Your task to perform on an android device: Set the phone to "Do not disturb". Image 0: 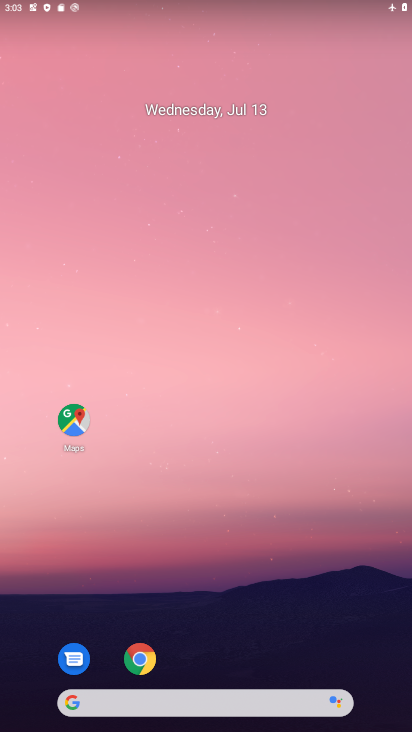
Step 0: drag from (362, 636) to (337, 200)
Your task to perform on an android device: Set the phone to "Do not disturb". Image 1: 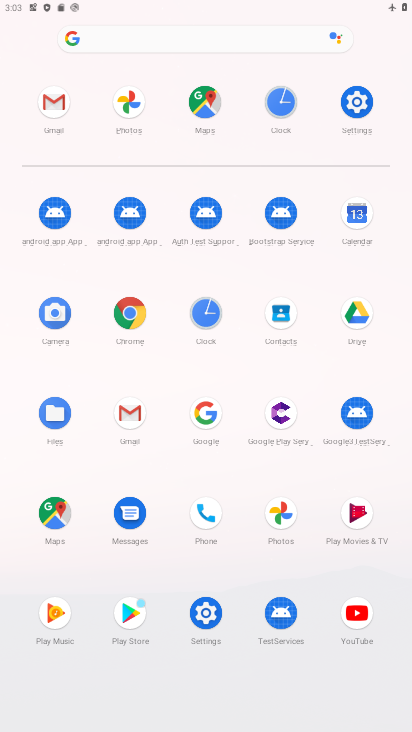
Step 1: click (206, 612)
Your task to perform on an android device: Set the phone to "Do not disturb". Image 2: 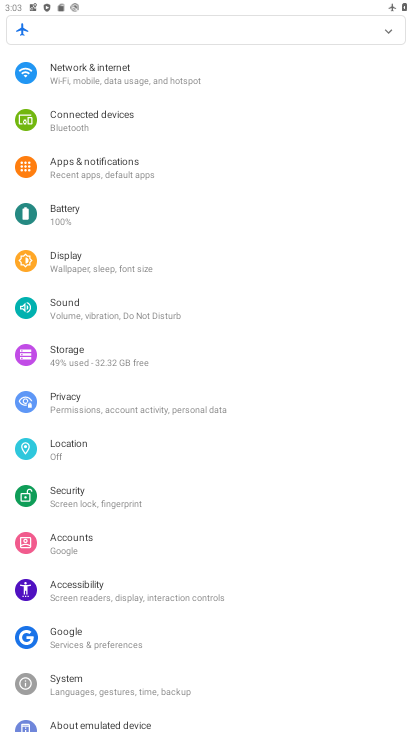
Step 2: click (59, 305)
Your task to perform on an android device: Set the phone to "Do not disturb". Image 3: 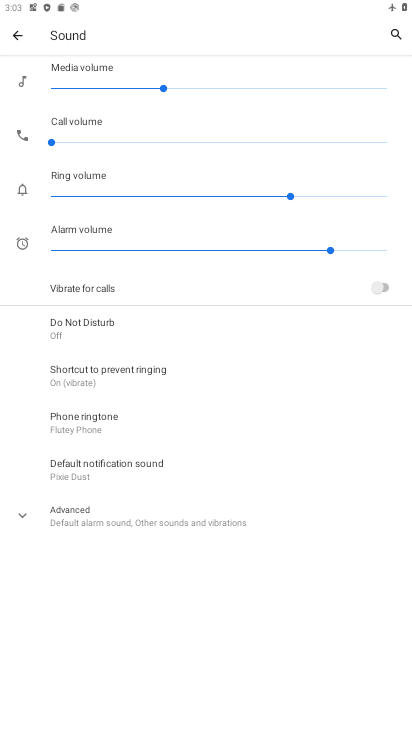
Step 3: click (79, 326)
Your task to perform on an android device: Set the phone to "Do not disturb". Image 4: 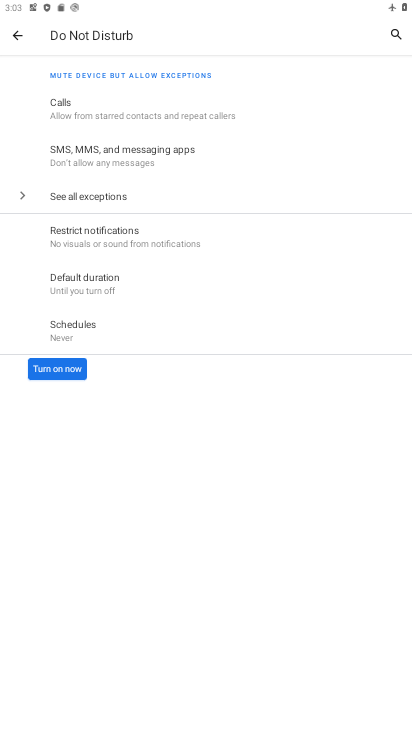
Step 4: click (56, 369)
Your task to perform on an android device: Set the phone to "Do not disturb". Image 5: 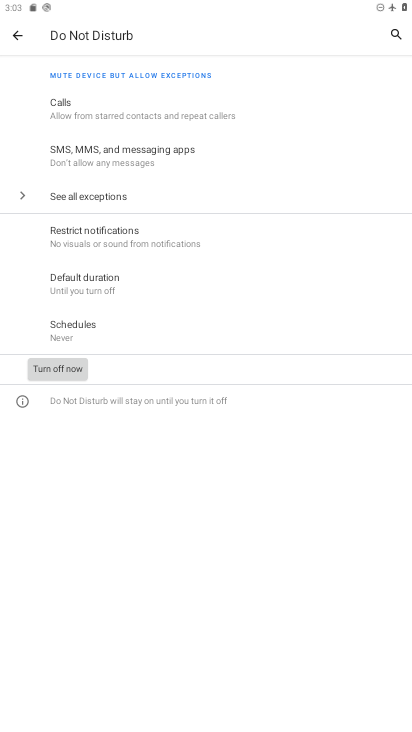
Step 5: task complete